Your task to perform on an android device: turn on priority inbox in the gmail app Image 0: 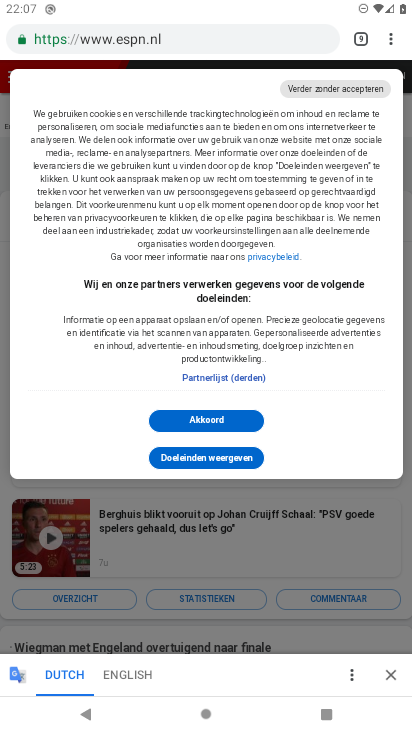
Step 0: press home button
Your task to perform on an android device: turn on priority inbox in the gmail app Image 1: 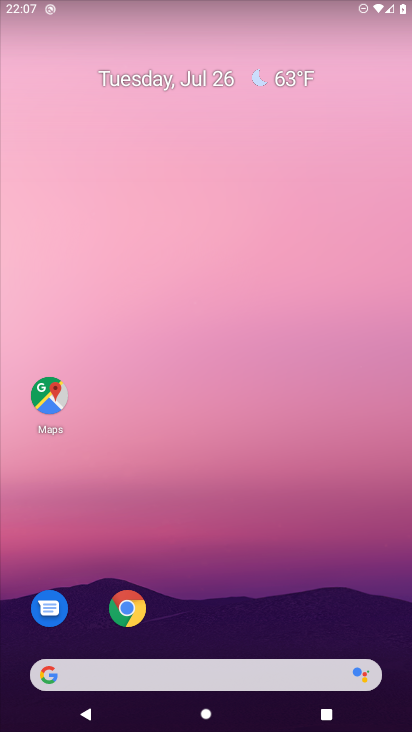
Step 1: drag from (63, 706) to (277, 67)
Your task to perform on an android device: turn on priority inbox in the gmail app Image 2: 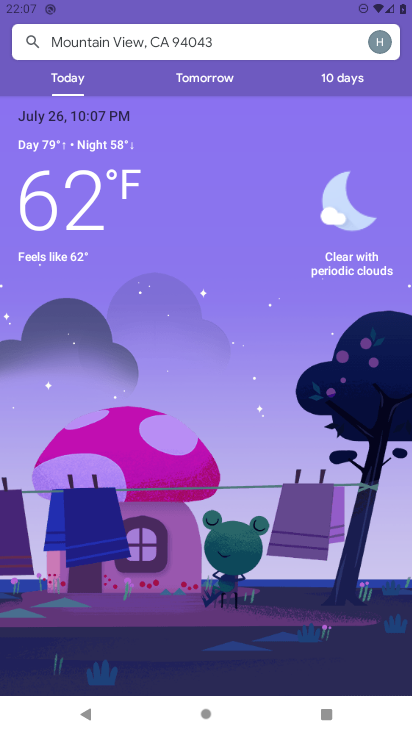
Step 2: press home button
Your task to perform on an android device: turn on priority inbox in the gmail app Image 3: 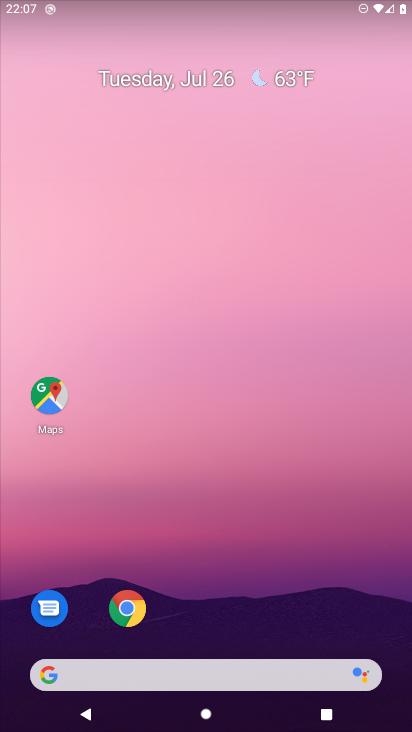
Step 3: drag from (53, 686) to (252, 48)
Your task to perform on an android device: turn on priority inbox in the gmail app Image 4: 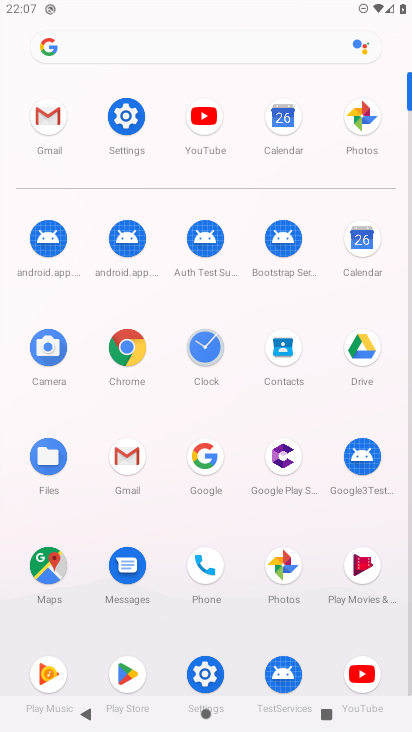
Step 4: click (134, 455)
Your task to perform on an android device: turn on priority inbox in the gmail app Image 5: 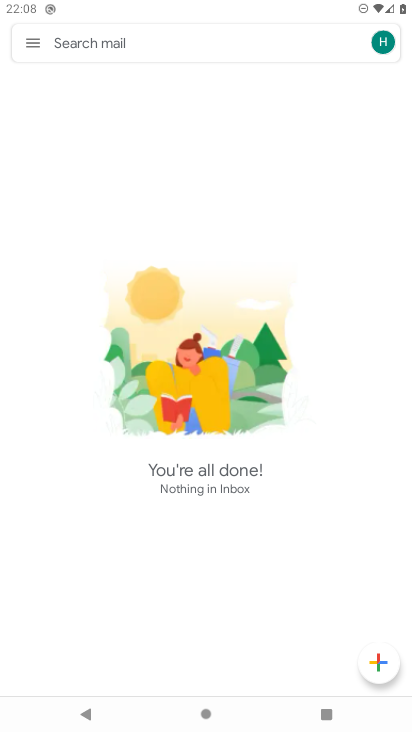
Step 5: click (37, 41)
Your task to perform on an android device: turn on priority inbox in the gmail app Image 6: 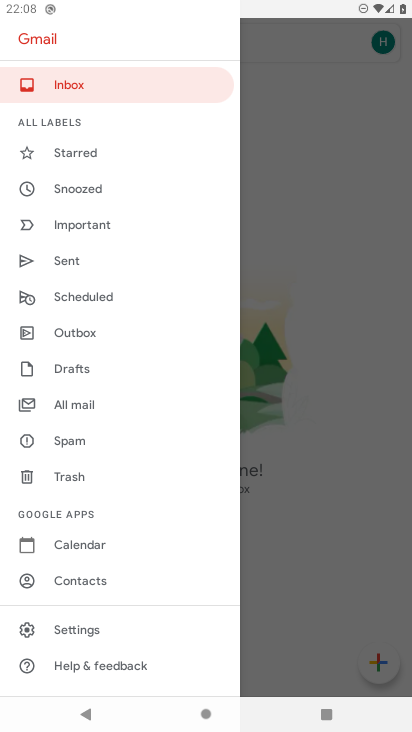
Step 6: click (83, 624)
Your task to perform on an android device: turn on priority inbox in the gmail app Image 7: 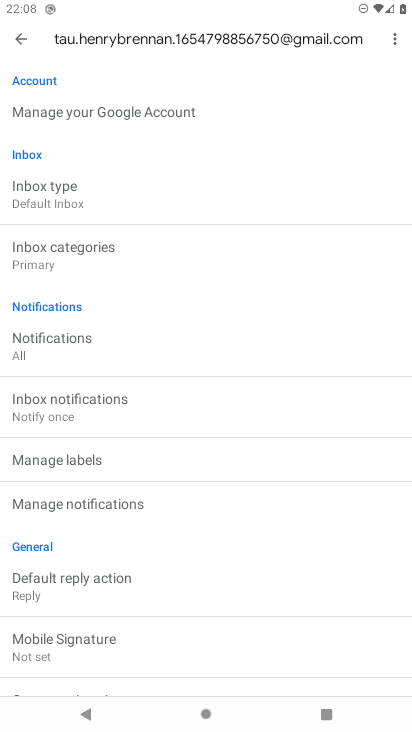
Step 7: click (45, 195)
Your task to perform on an android device: turn on priority inbox in the gmail app Image 8: 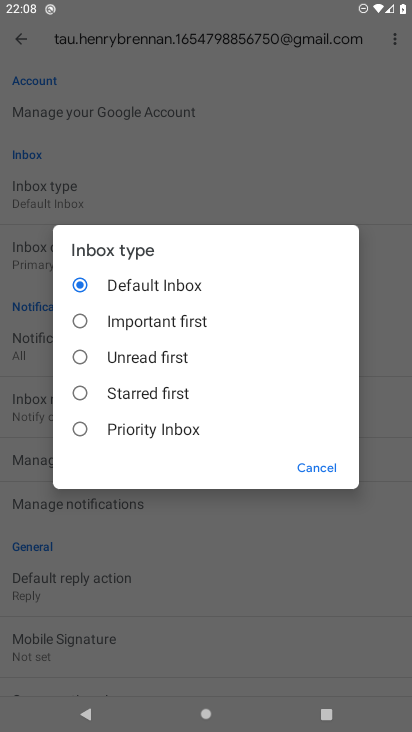
Step 8: click (87, 430)
Your task to perform on an android device: turn on priority inbox in the gmail app Image 9: 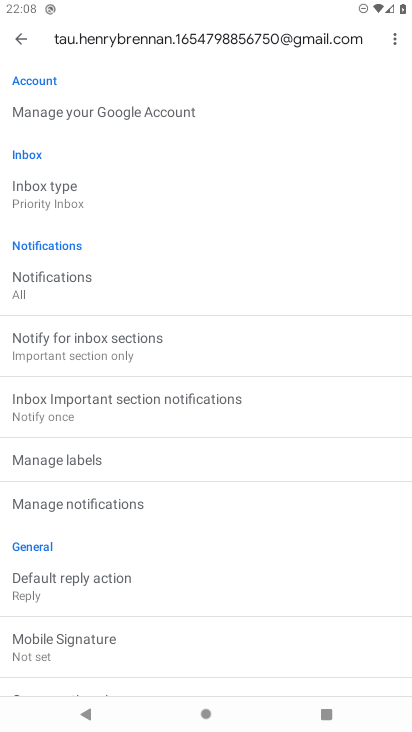
Step 9: task complete